Your task to perform on an android device: When is my next appointment? Image 0: 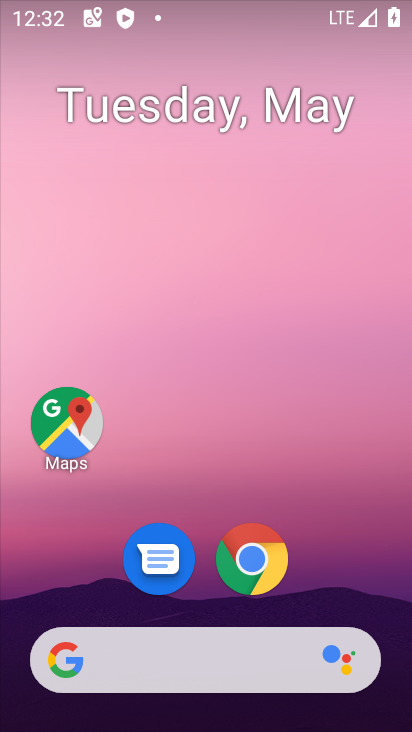
Step 0: drag from (371, 553) to (330, 187)
Your task to perform on an android device: When is my next appointment? Image 1: 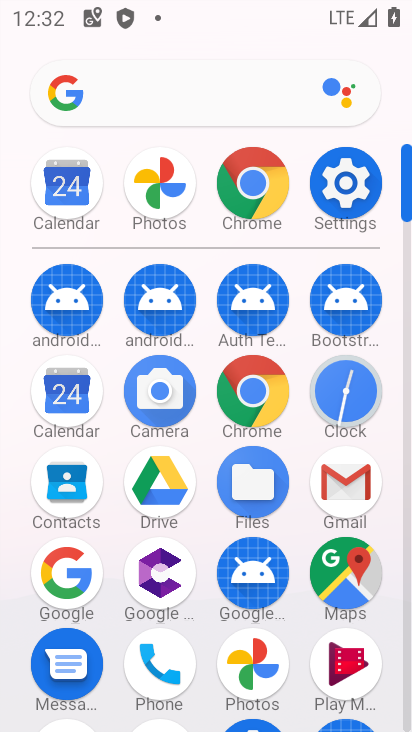
Step 1: click (351, 213)
Your task to perform on an android device: When is my next appointment? Image 2: 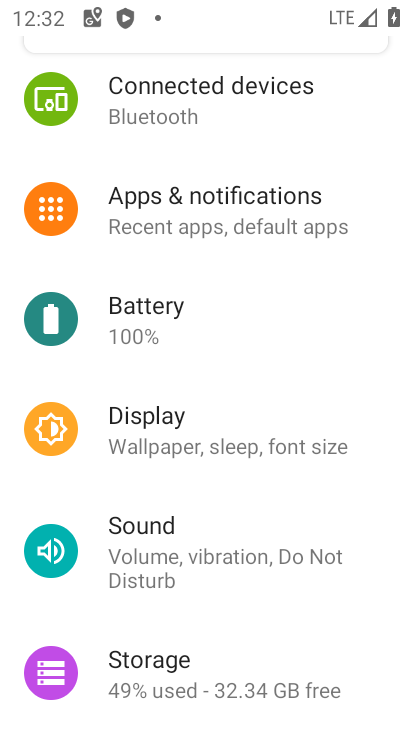
Step 2: press home button
Your task to perform on an android device: When is my next appointment? Image 3: 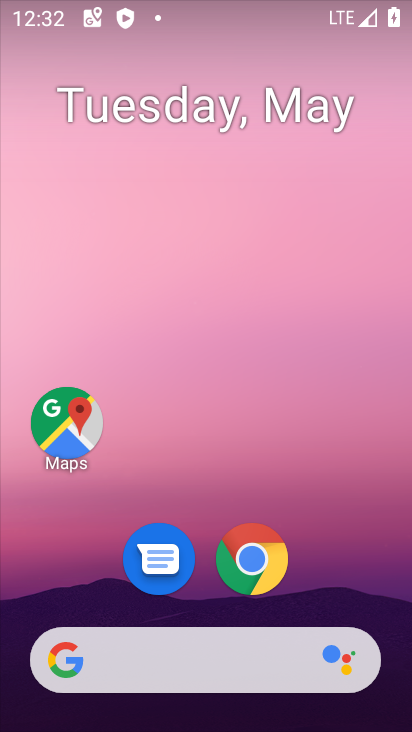
Step 3: drag from (372, 549) to (334, 370)
Your task to perform on an android device: When is my next appointment? Image 4: 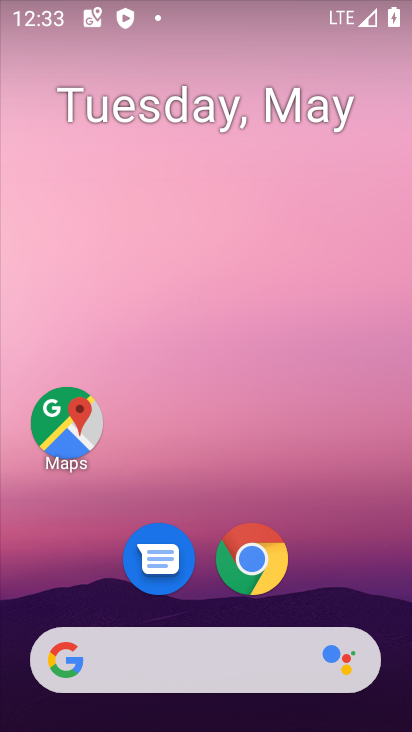
Step 4: drag from (361, 578) to (321, 138)
Your task to perform on an android device: When is my next appointment? Image 5: 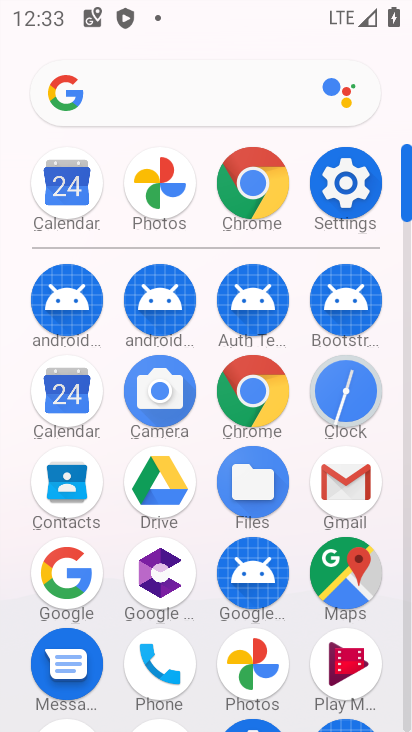
Step 5: click (51, 184)
Your task to perform on an android device: When is my next appointment? Image 6: 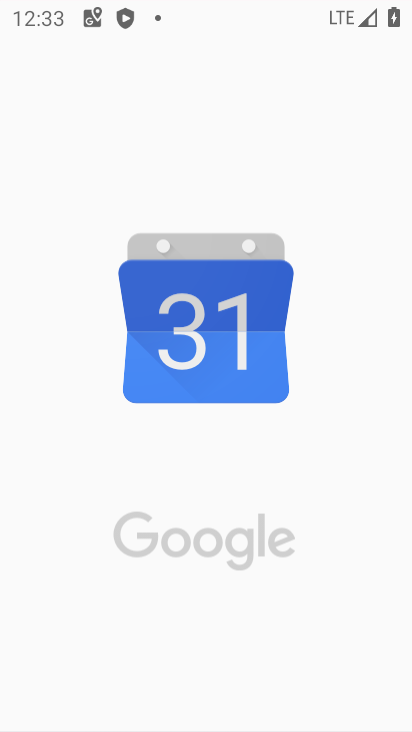
Step 6: task complete